Your task to perform on an android device: Show me productivity apps on the Play Store Image 0: 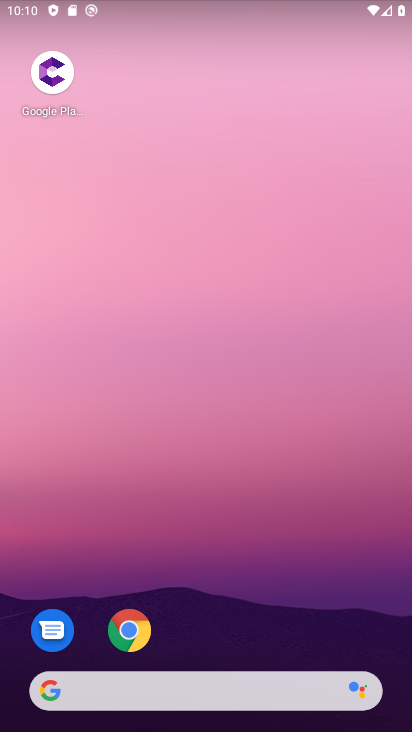
Step 0: drag from (231, 639) to (202, 188)
Your task to perform on an android device: Show me productivity apps on the Play Store Image 1: 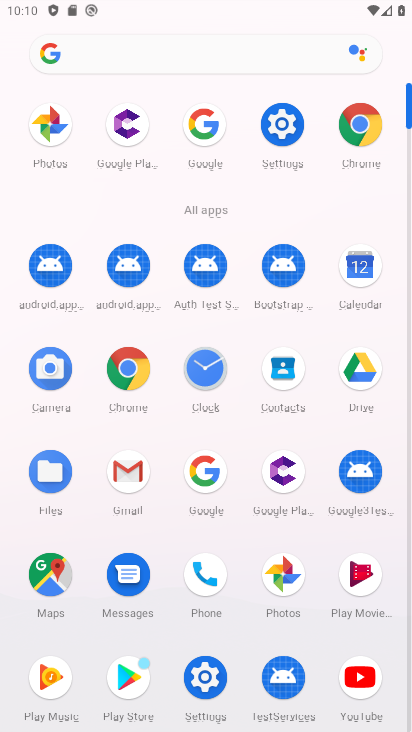
Step 1: click (131, 677)
Your task to perform on an android device: Show me productivity apps on the Play Store Image 2: 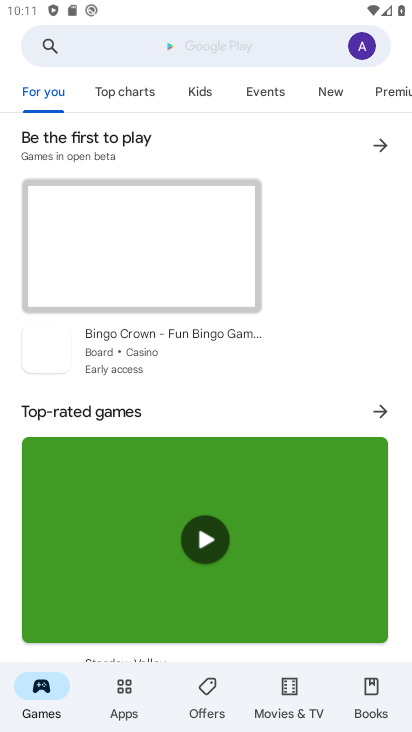
Step 2: click (120, 690)
Your task to perform on an android device: Show me productivity apps on the Play Store Image 3: 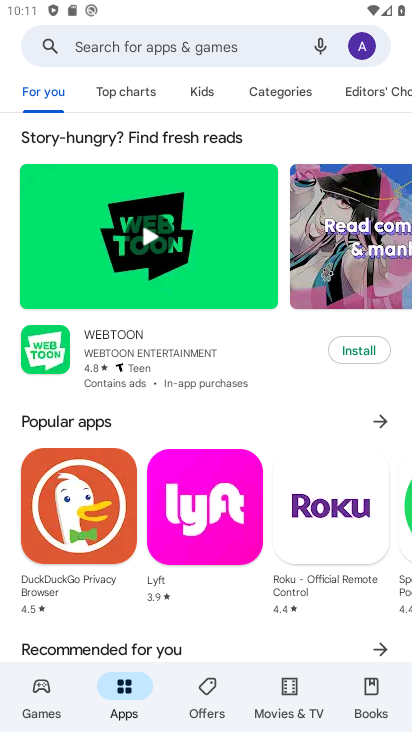
Step 3: click (272, 99)
Your task to perform on an android device: Show me productivity apps on the Play Store Image 4: 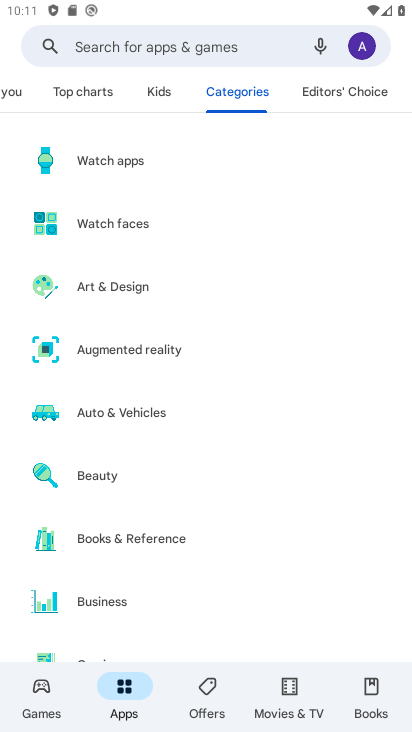
Step 4: drag from (206, 603) to (248, 162)
Your task to perform on an android device: Show me productivity apps on the Play Store Image 5: 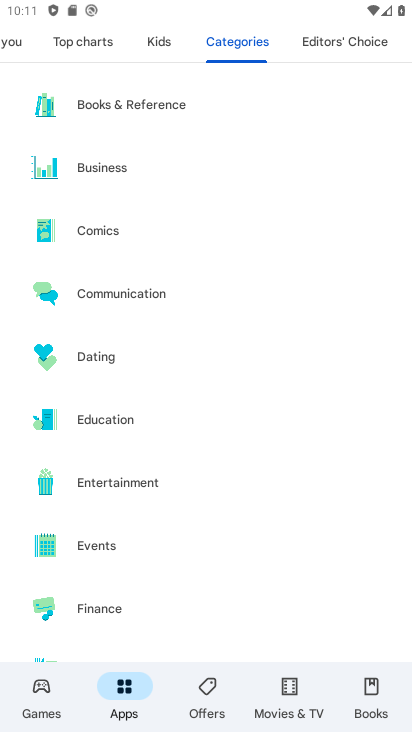
Step 5: drag from (192, 627) to (161, 101)
Your task to perform on an android device: Show me productivity apps on the Play Store Image 6: 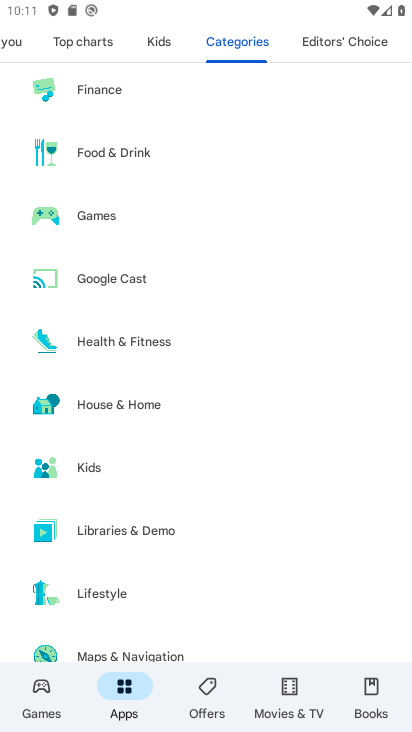
Step 6: drag from (180, 650) to (198, 233)
Your task to perform on an android device: Show me productivity apps on the Play Store Image 7: 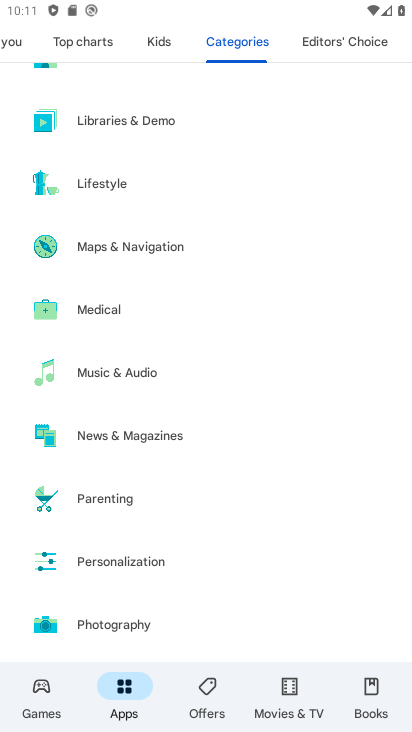
Step 7: drag from (172, 630) to (129, 383)
Your task to perform on an android device: Show me productivity apps on the Play Store Image 8: 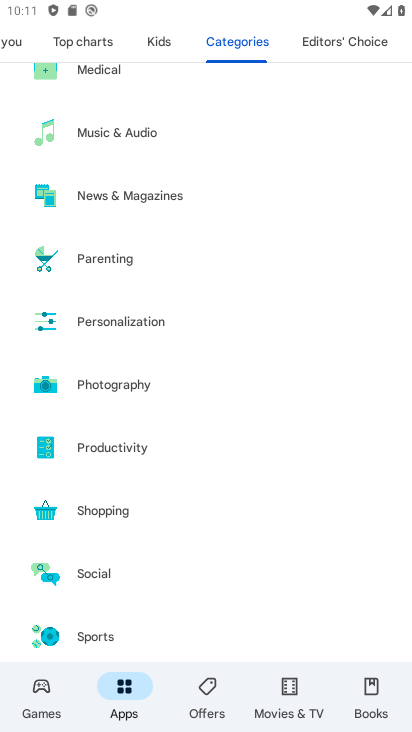
Step 8: click (125, 442)
Your task to perform on an android device: Show me productivity apps on the Play Store Image 9: 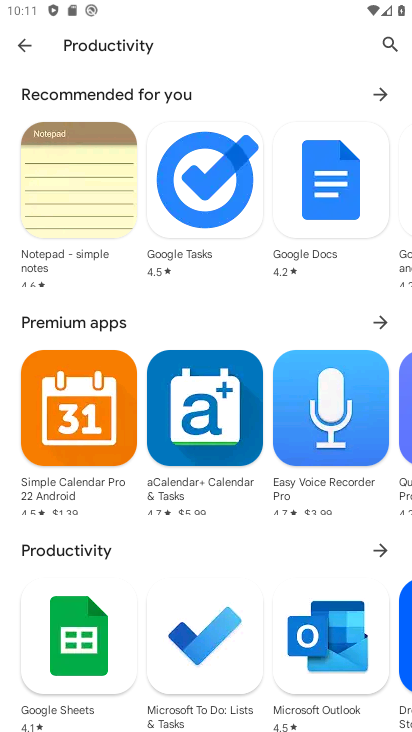
Step 9: task complete